Your task to perform on an android device: What's the weather today? Image 0: 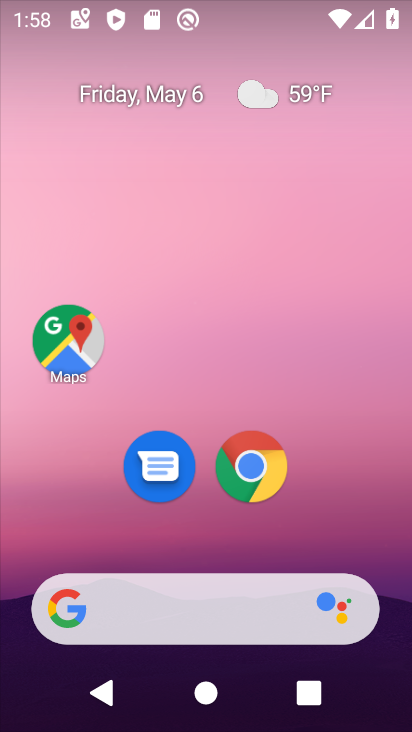
Step 0: click (291, 91)
Your task to perform on an android device: What's the weather today? Image 1: 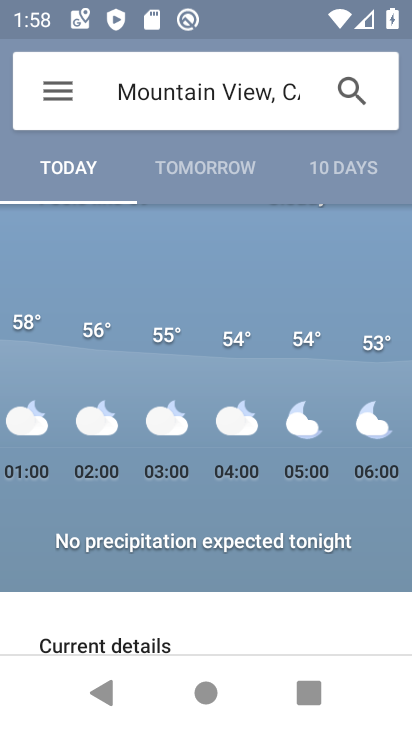
Step 1: task complete